Your task to perform on an android device: View the shopping cart on newegg. Add jbl charge 4 to the cart on newegg Image 0: 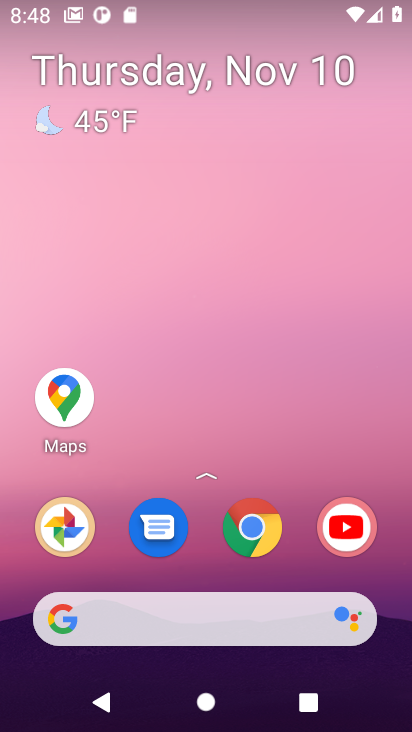
Step 0: drag from (162, 582) to (122, 37)
Your task to perform on an android device: View the shopping cart on newegg. Add jbl charge 4 to the cart on newegg Image 1: 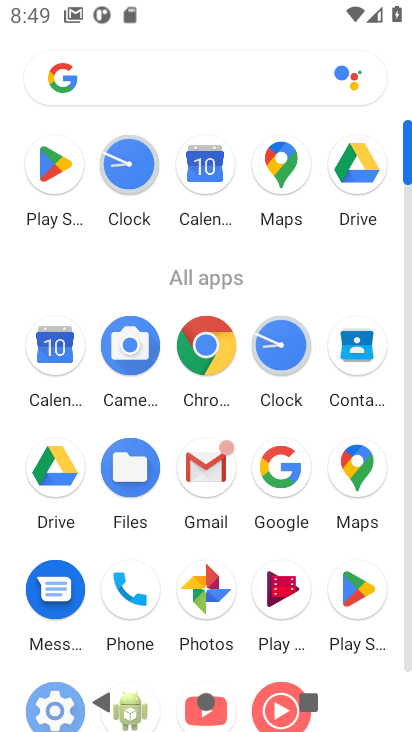
Step 1: click (209, 355)
Your task to perform on an android device: View the shopping cart on newegg. Add jbl charge 4 to the cart on newegg Image 2: 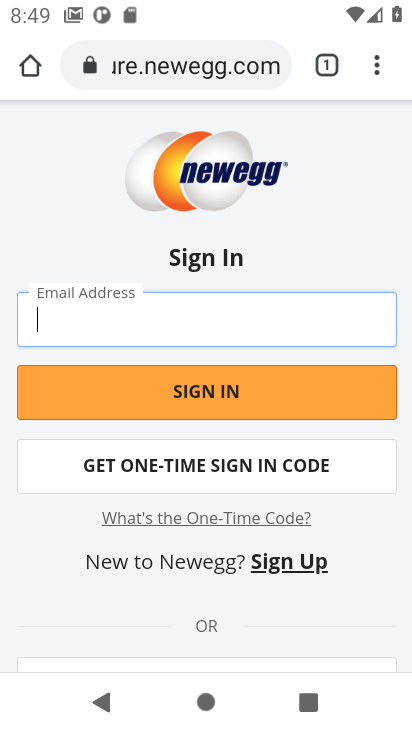
Step 2: press back button
Your task to perform on an android device: View the shopping cart on newegg. Add jbl charge 4 to the cart on newegg Image 3: 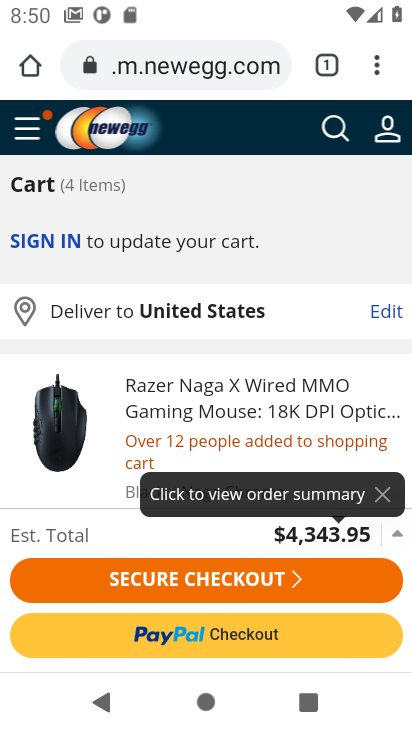
Step 3: press back button
Your task to perform on an android device: View the shopping cart on newegg. Add jbl charge 4 to the cart on newegg Image 4: 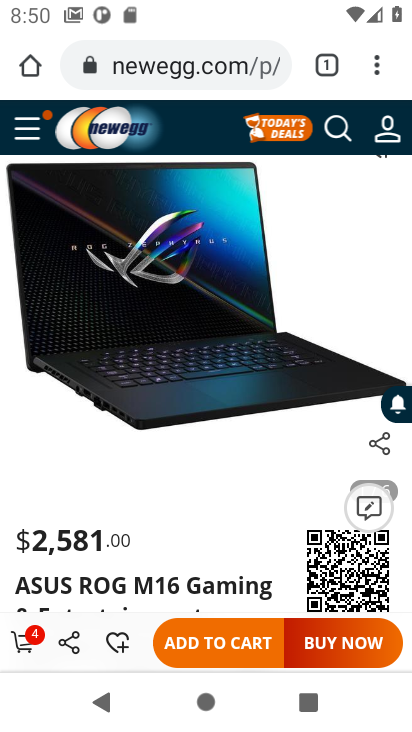
Step 4: click (25, 638)
Your task to perform on an android device: View the shopping cart on newegg. Add jbl charge 4 to the cart on newegg Image 5: 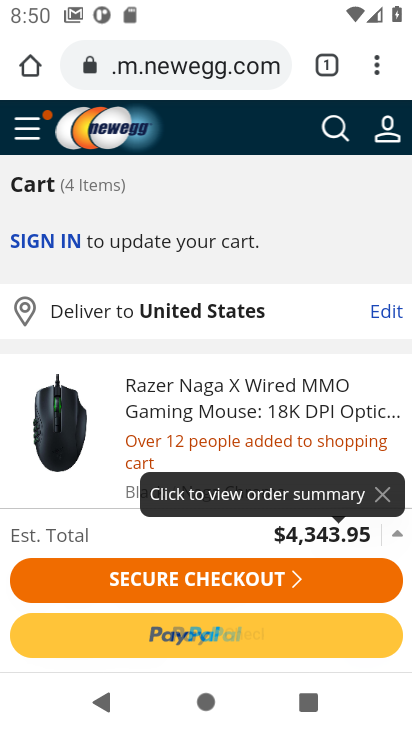
Step 5: click (329, 121)
Your task to perform on an android device: View the shopping cart on newegg. Add jbl charge 4 to the cart on newegg Image 6: 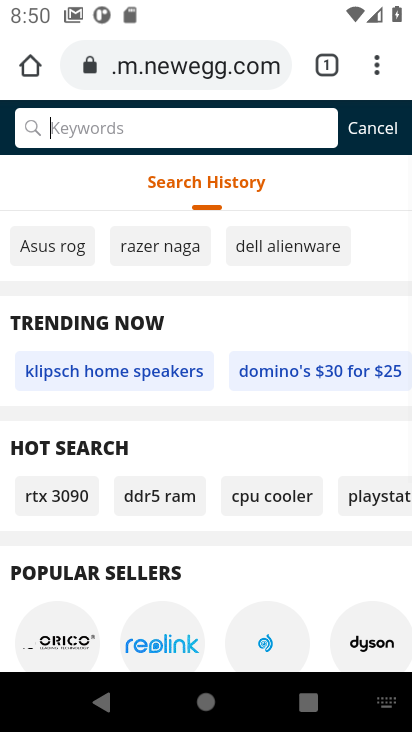
Step 6: click (326, 131)
Your task to perform on an android device: View the shopping cart on newegg. Add jbl charge 4 to the cart on newegg Image 7: 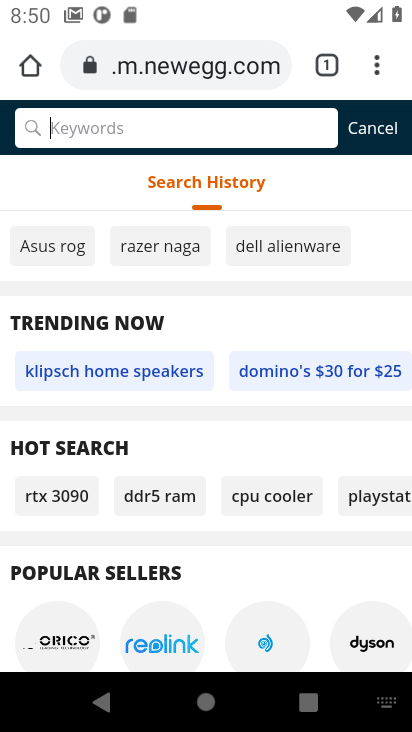
Step 7: type " jbl charge 4 "
Your task to perform on an android device: View the shopping cart on newegg. Add jbl charge 4 to the cart on newegg Image 8: 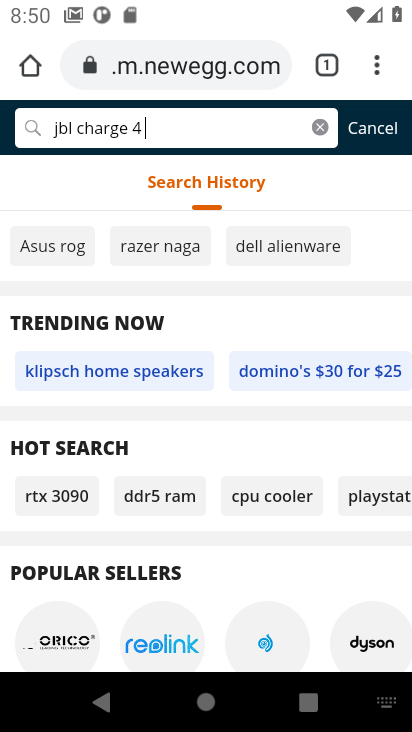
Step 8: press enter
Your task to perform on an android device: View the shopping cart on newegg. Add jbl charge 4 to the cart on newegg Image 9: 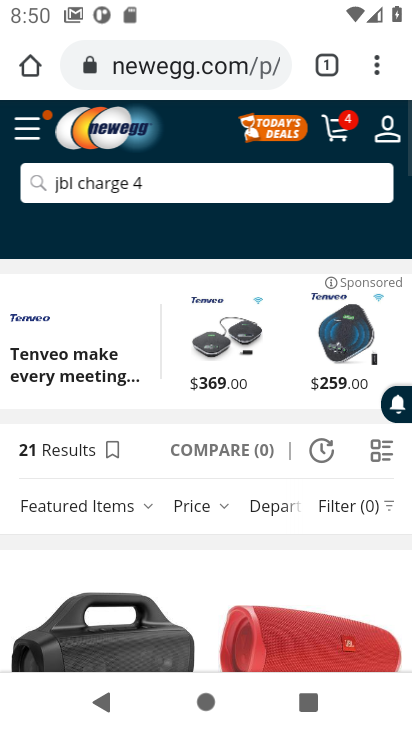
Step 9: drag from (189, 572) to (129, 305)
Your task to perform on an android device: View the shopping cart on newegg. Add jbl charge 4 to the cart on newegg Image 10: 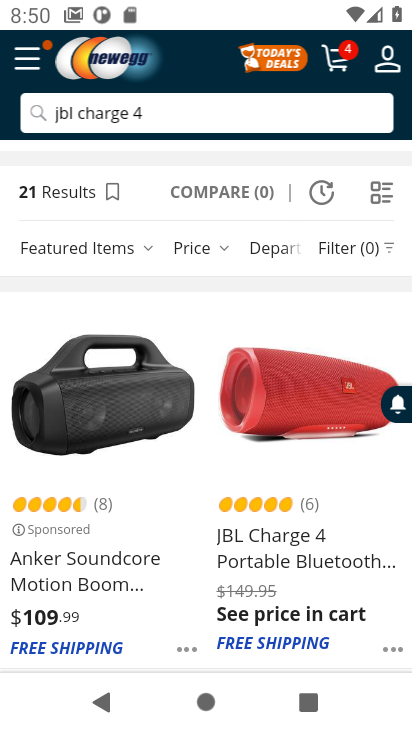
Step 10: click (80, 573)
Your task to perform on an android device: View the shopping cart on newegg. Add jbl charge 4 to the cart on newegg Image 11: 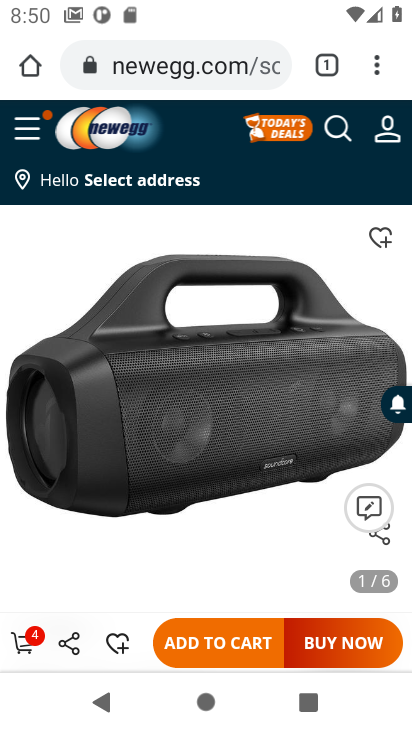
Step 11: click (202, 636)
Your task to perform on an android device: View the shopping cart on newegg. Add jbl charge 4 to the cart on newegg Image 12: 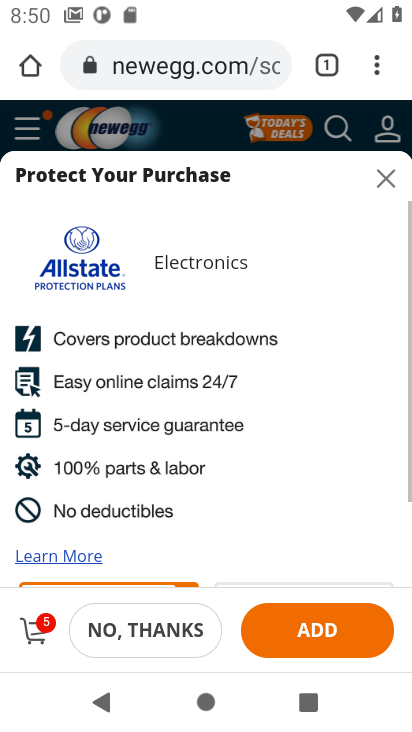
Step 12: click (309, 631)
Your task to perform on an android device: View the shopping cart on newegg. Add jbl charge 4 to the cart on newegg Image 13: 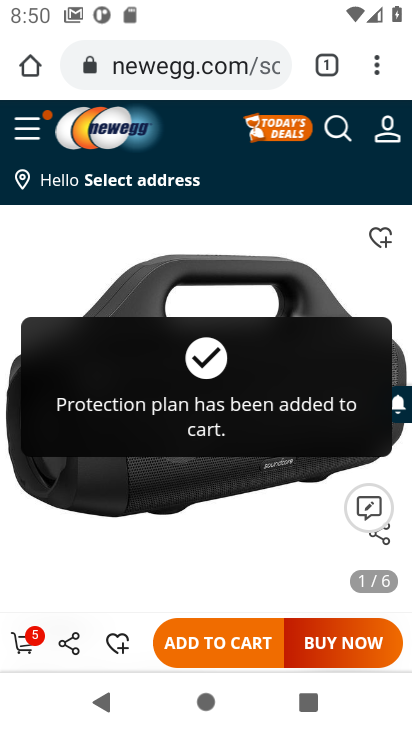
Step 13: task complete